Your task to perform on an android device: Show me productivity apps on the Play Store Image 0: 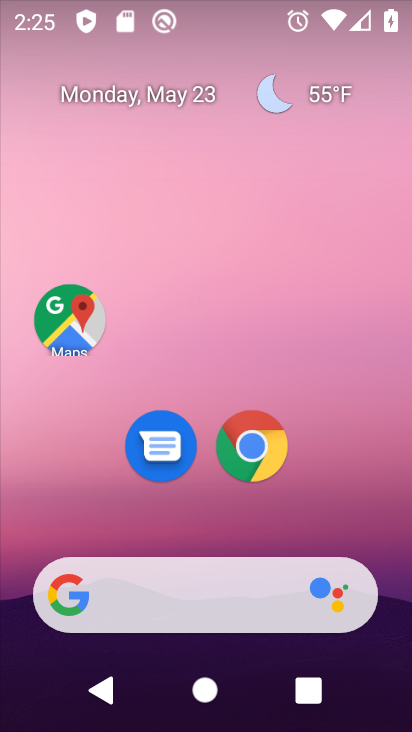
Step 0: drag from (203, 536) to (161, 211)
Your task to perform on an android device: Show me productivity apps on the Play Store Image 1: 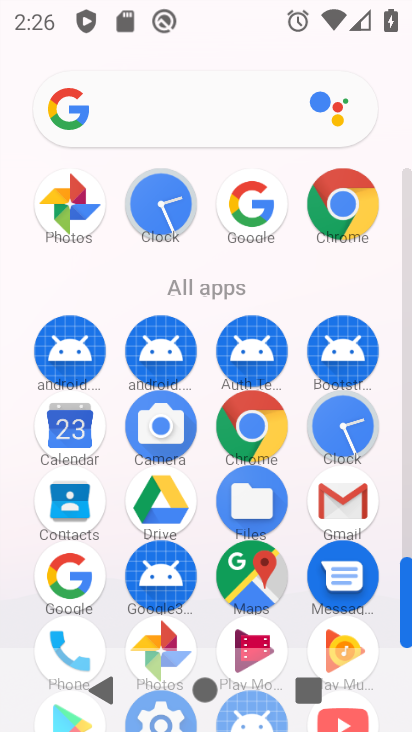
Step 1: drag from (214, 603) to (196, 390)
Your task to perform on an android device: Show me productivity apps on the Play Store Image 2: 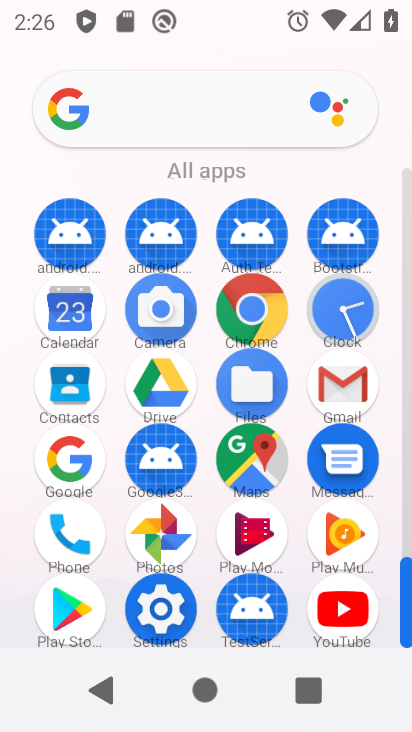
Step 2: click (71, 585)
Your task to perform on an android device: Show me productivity apps on the Play Store Image 3: 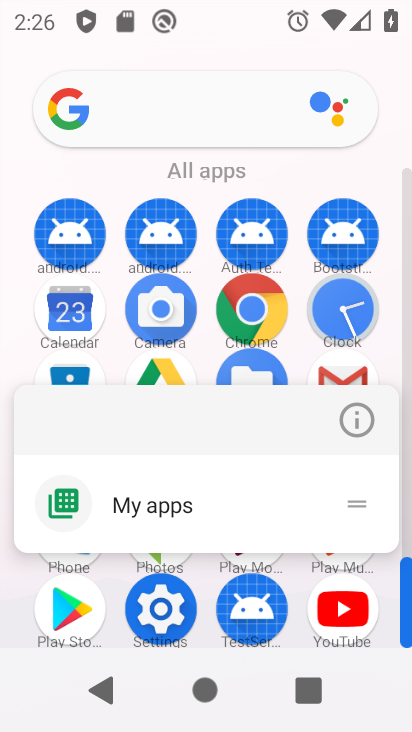
Step 3: click (83, 608)
Your task to perform on an android device: Show me productivity apps on the Play Store Image 4: 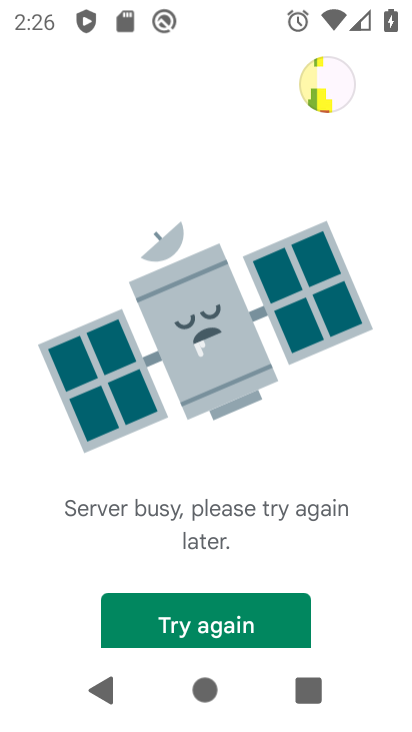
Step 4: task complete